Your task to perform on an android device: turn on priority inbox in the gmail app Image 0: 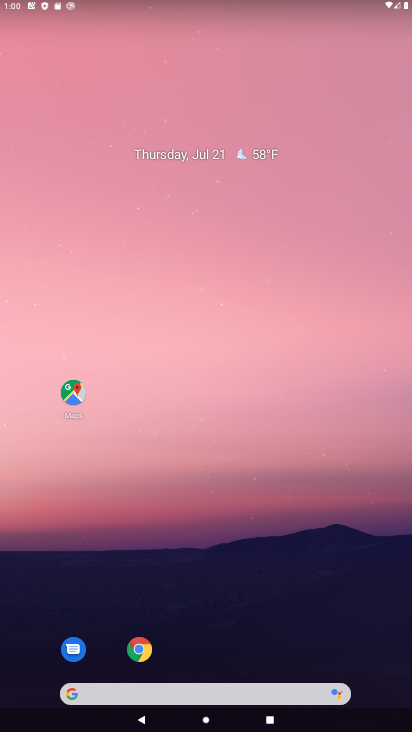
Step 0: drag from (219, 656) to (201, 121)
Your task to perform on an android device: turn on priority inbox in the gmail app Image 1: 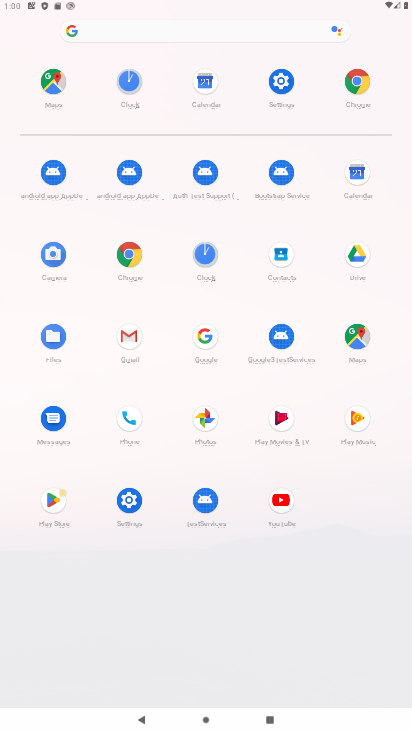
Step 1: click (130, 329)
Your task to perform on an android device: turn on priority inbox in the gmail app Image 2: 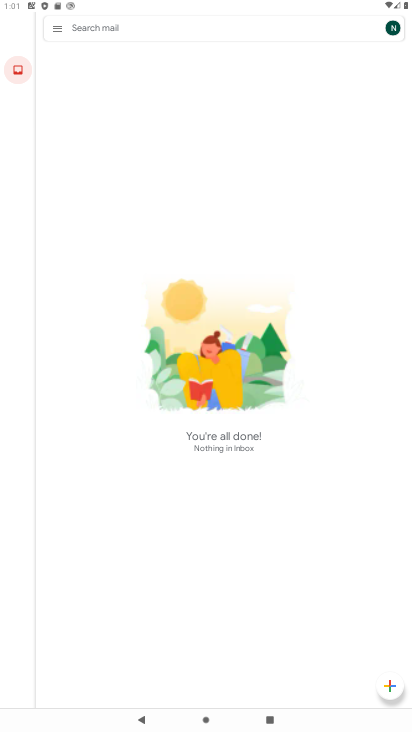
Step 2: click (61, 29)
Your task to perform on an android device: turn on priority inbox in the gmail app Image 3: 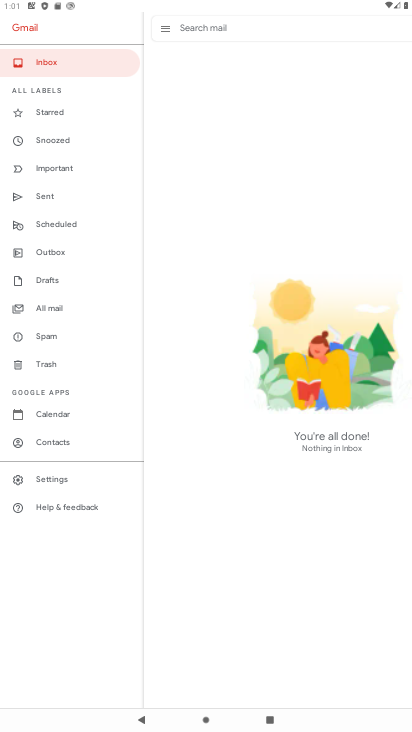
Step 3: click (72, 469)
Your task to perform on an android device: turn on priority inbox in the gmail app Image 4: 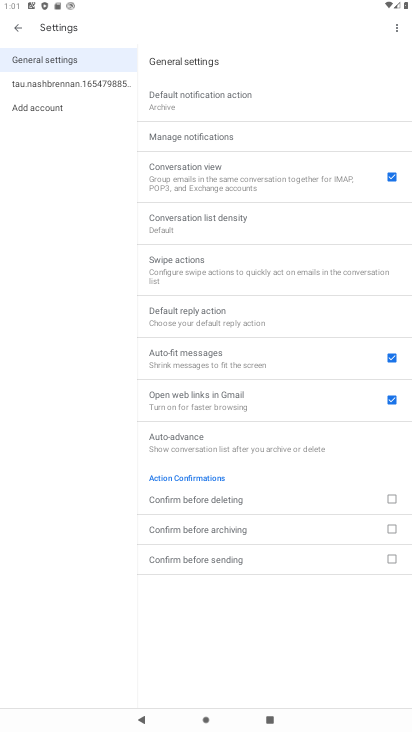
Step 4: click (50, 77)
Your task to perform on an android device: turn on priority inbox in the gmail app Image 5: 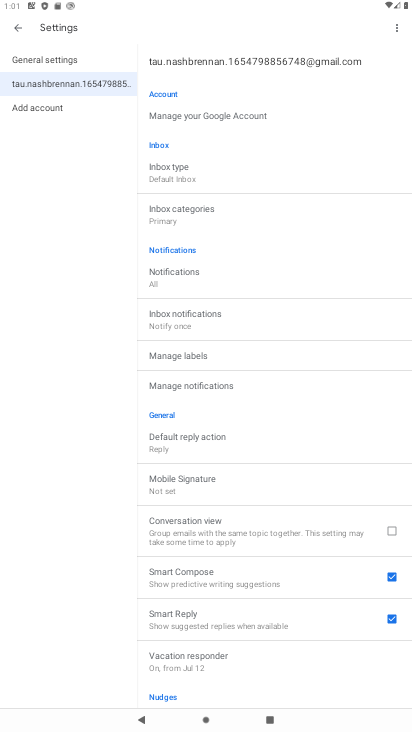
Step 5: click (191, 232)
Your task to perform on an android device: turn on priority inbox in the gmail app Image 6: 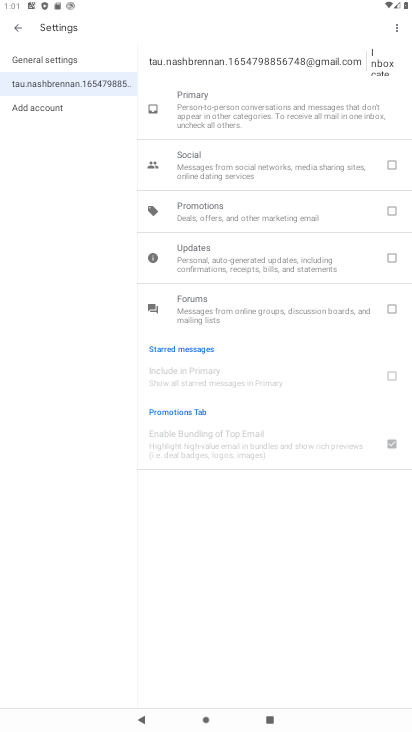
Step 6: task complete